Your task to perform on an android device: toggle airplane mode Image 0: 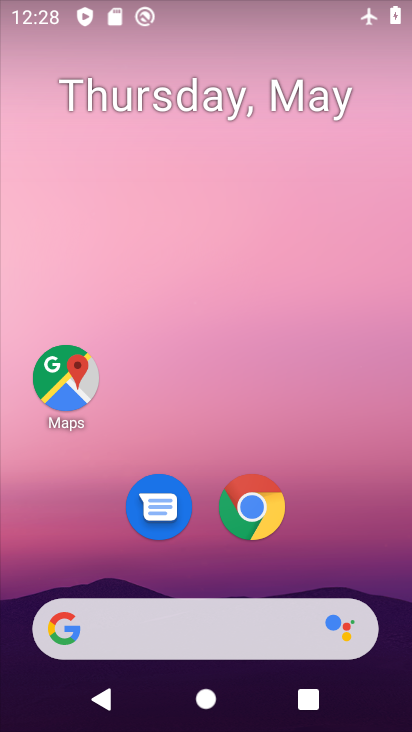
Step 0: drag from (214, 580) to (216, 197)
Your task to perform on an android device: toggle airplane mode Image 1: 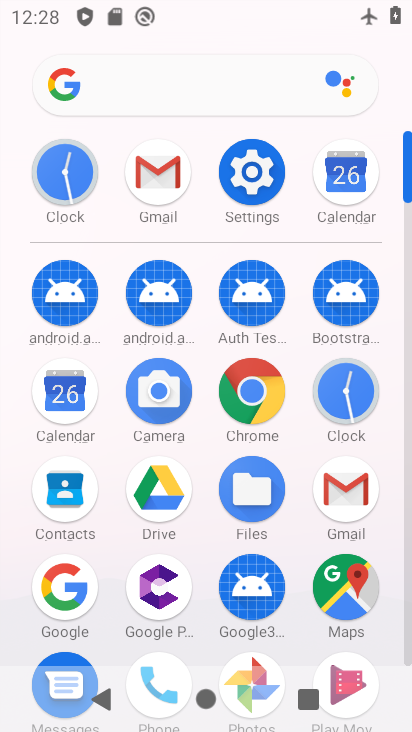
Step 1: click (268, 178)
Your task to perform on an android device: toggle airplane mode Image 2: 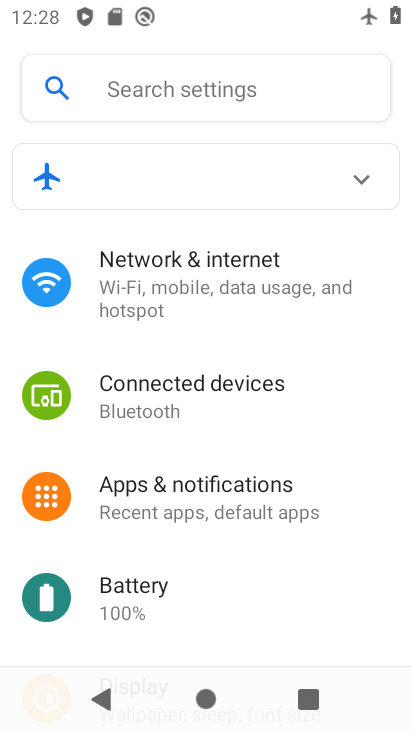
Step 2: click (235, 279)
Your task to perform on an android device: toggle airplane mode Image 3: 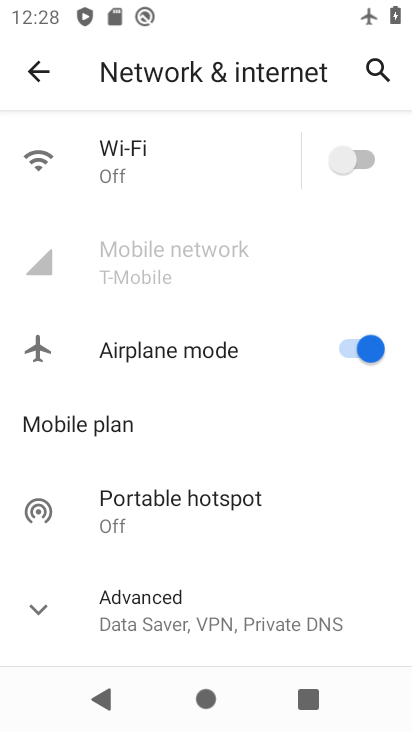
Step 3: click (344, 350)
Your task to perform on an android device: toggle airplane mode Image 4: 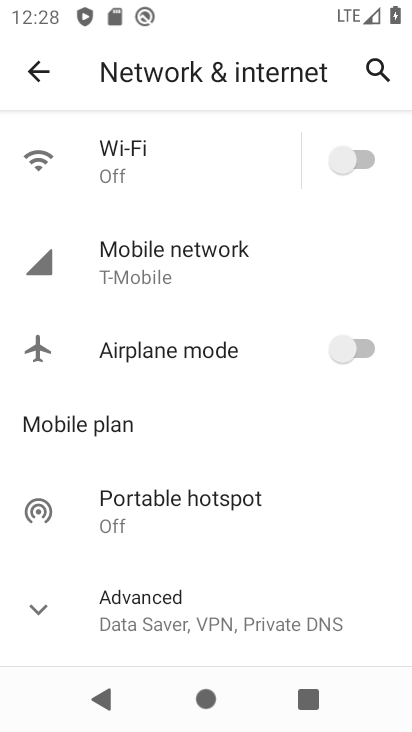
Step 4: task complete